Your task to perform on an android device: Open sound settings Image 0: 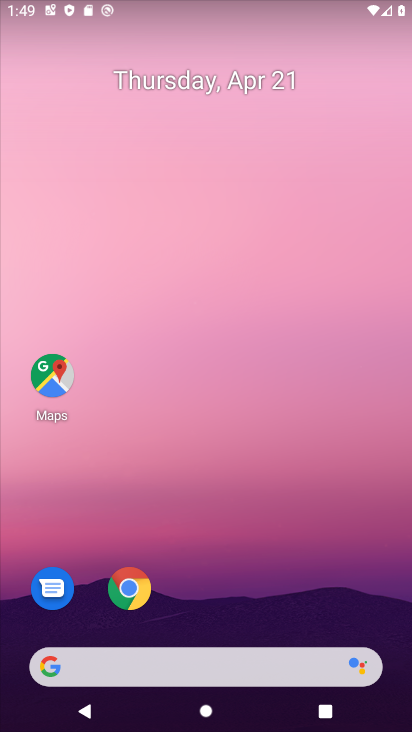
Step 0: drag from (209, 617) to (213, 238)
Your task to perform on an android device: Open sound settings Image 1: 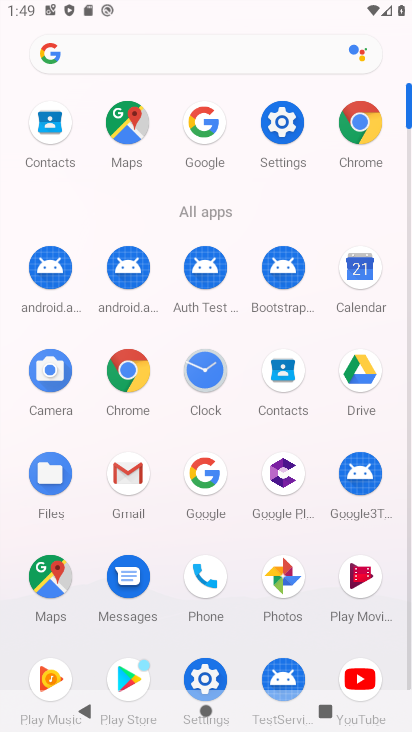
Step 1: click (281, 141)
Your task to perform on an android device: Open sound settings Image 2: 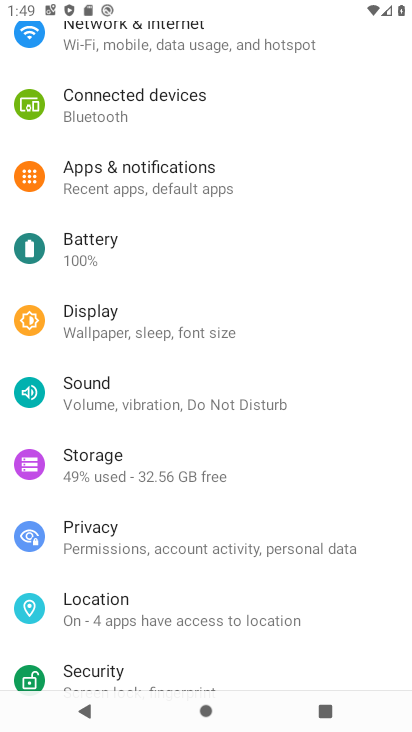
Step 2: click (151, 403)
Your task to perform on an android device: Open sound settings Image 3: 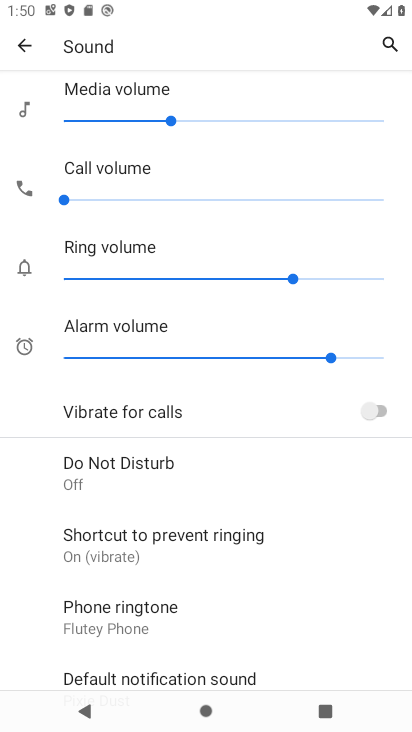
Step 3: task complete